Your task to perform on an android device: Open Google Maps and go to "Timeline" Image 0: 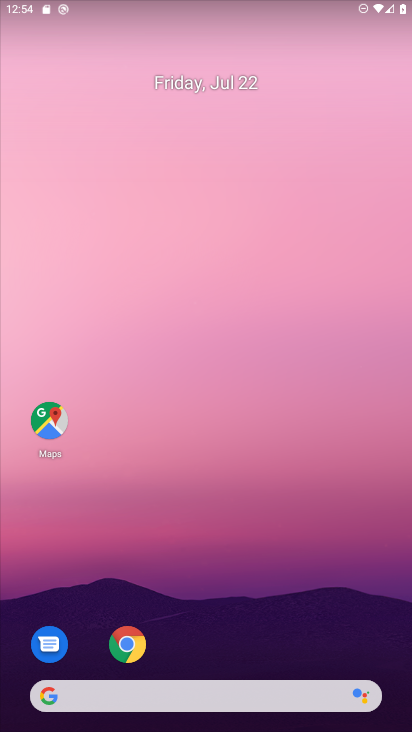
Step 0: click (53, 405)
Your task to perform on an android device: Open Google Maps and go to "Timeline" Image 1: 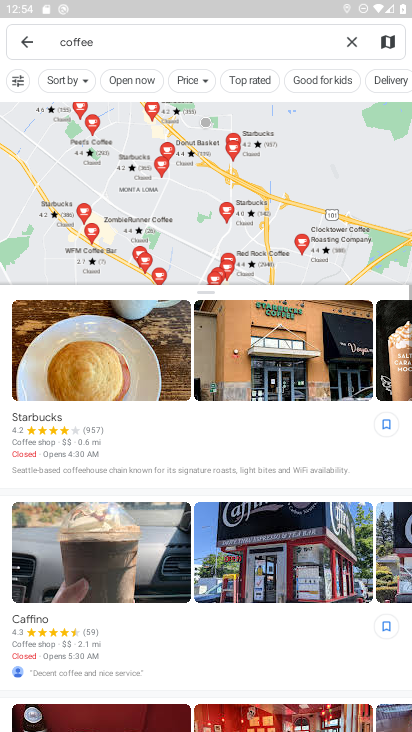
Step 1: click (32, 34)
Your task to perform on an android device: Open Google Maps and go to "Timeline" Image 2: 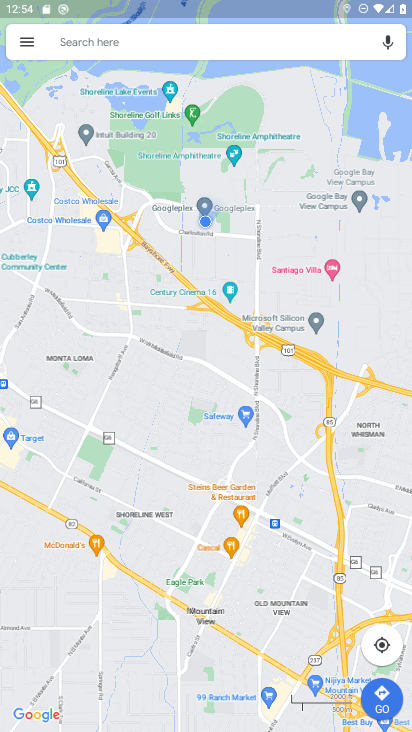
Step 2: click (32, 34)
Your task to perform on an android device: Open Google Maps and go to "Timeline" Image 3: 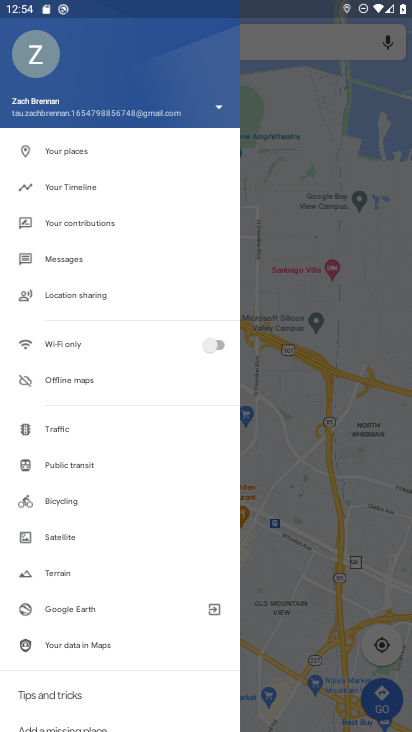
Step 3: click (79, 183)
Your task to perform on an android device: Open Google Maps and go to "Timeline" Image 4: 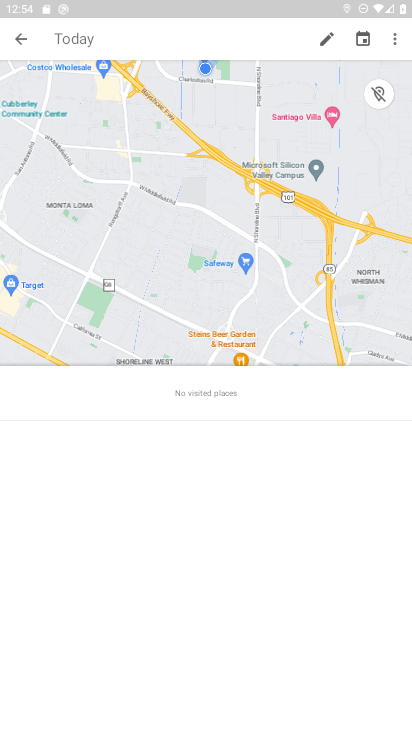
Step 4: task complete